Your task to perform on an android device: change keyboard looks Image 0: 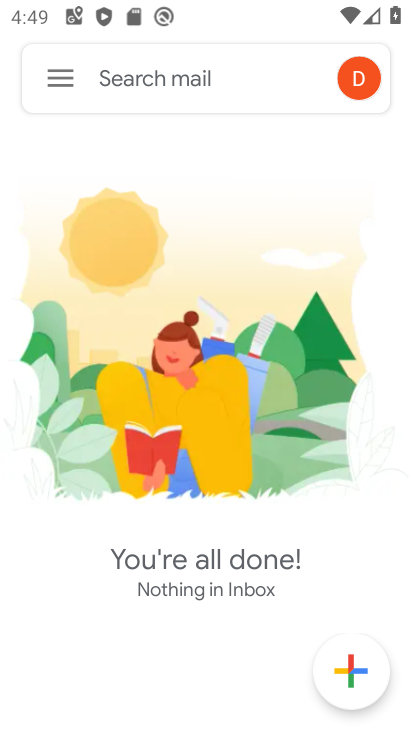
Step 0: press home button
Your task to perform on an android device: change keyboard looks Image 1: 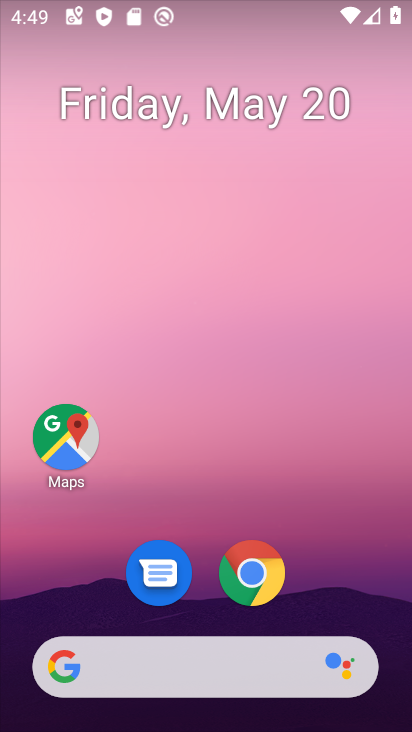
Step 1: drag from (409, 648) to (307, 5)
Your task to perform on an android device: change keyboard looks Image 2: 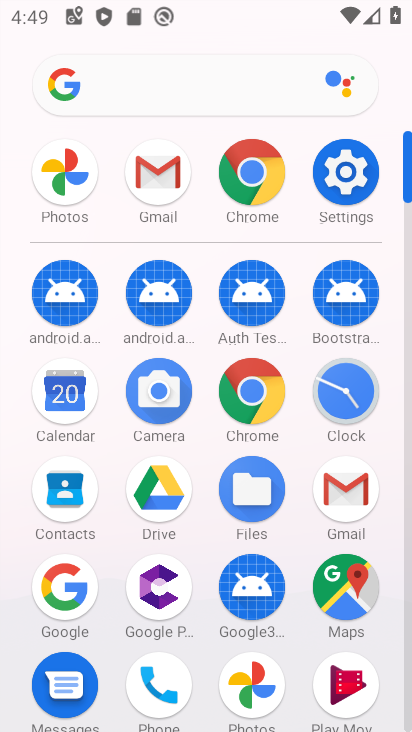
Step 2: click (408, 708)
Your task to perform on an android device: change keyboard looks Image 3: 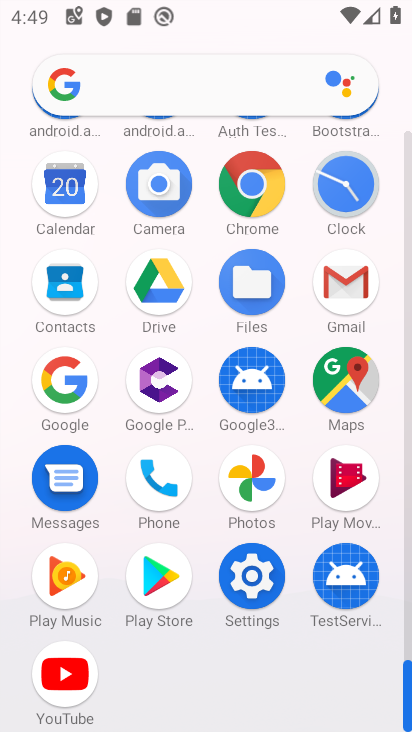
Step 3: click (248, 574)
Your task to perform on an android device: change keyboard looks Image 4: 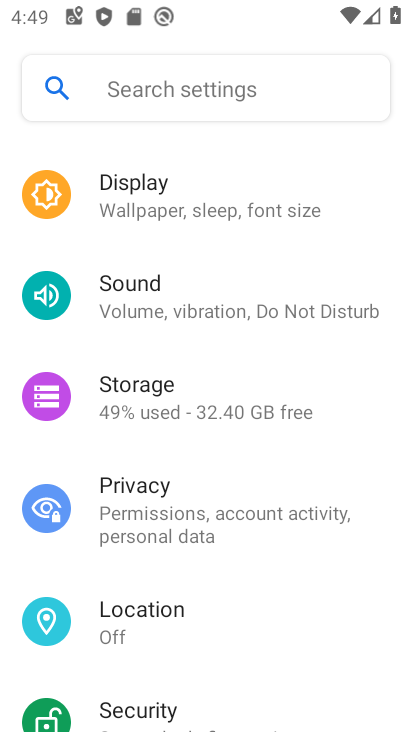
Step 4: drag from (315, 672) to (336, 245)
Your task to perform on an android device: change keyboard looks Image 5: 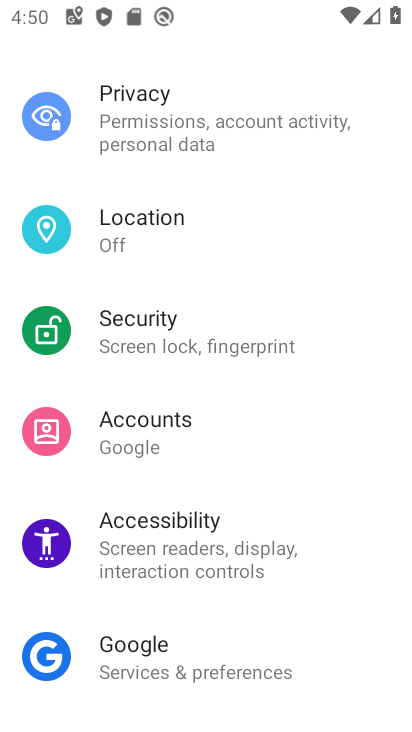
Step 5: drag from (345, 684) to (317, 204)
Your task to perform on an android device: change keyboard looks Image 6: 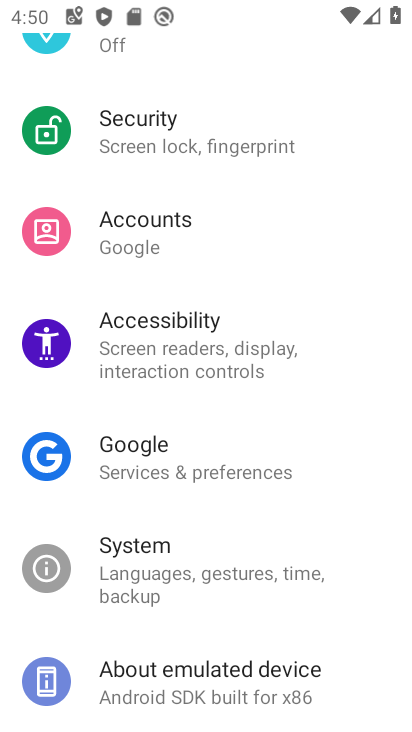
Step 6: click (131, 563)
Your task to perform on an android device: change keyboard looks Image 7: 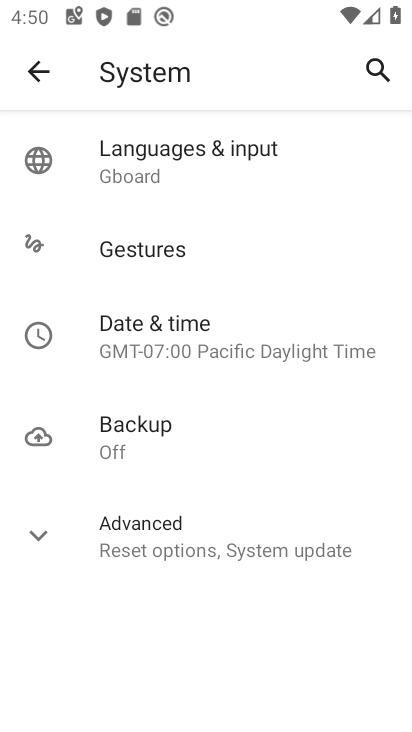
Step 7: click (151, 154)
Your task to perform on an android device: change keyboard looks Image 8: 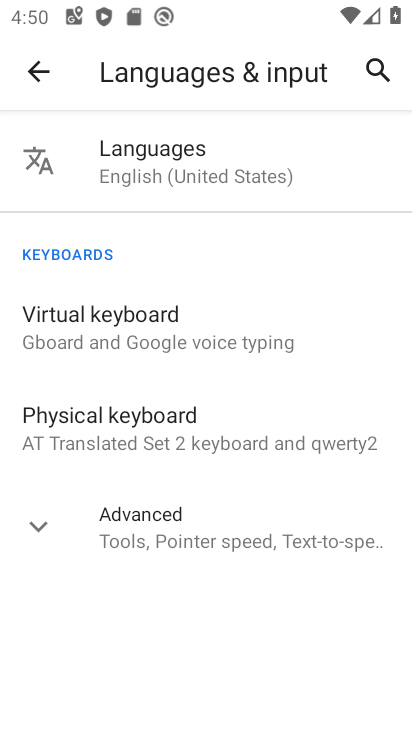
Step 8: click (86, 441)
Your task to perform on an android device: change keyboard looks Image 9: 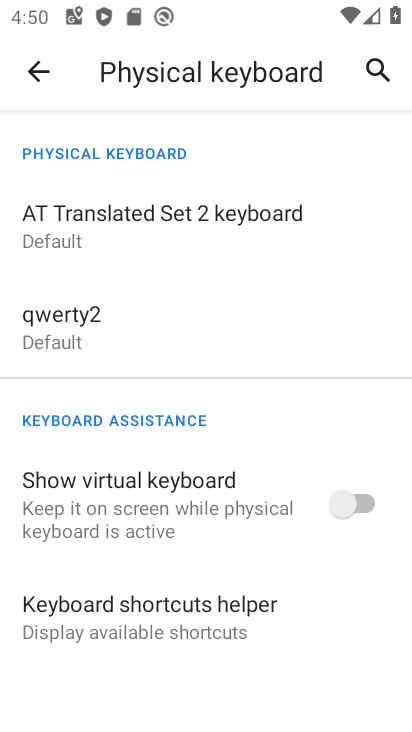
Step 9: click (68, 322)
Your task to perform on an android device: change keyboard looks Image 10: 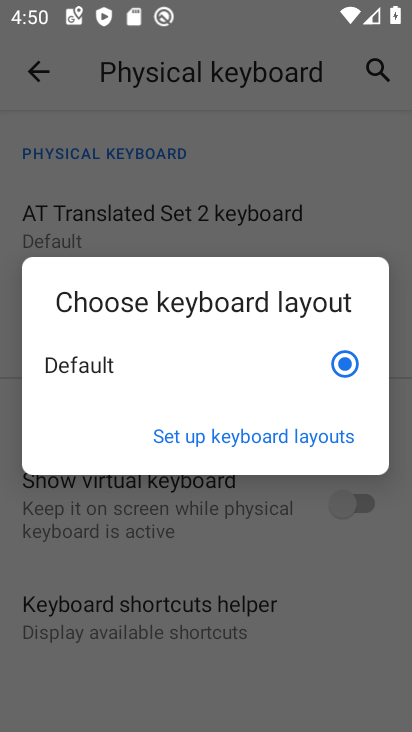
Step 10: click (268, 449)
Your task to perform on an android device: change keyboard looks Image 11: 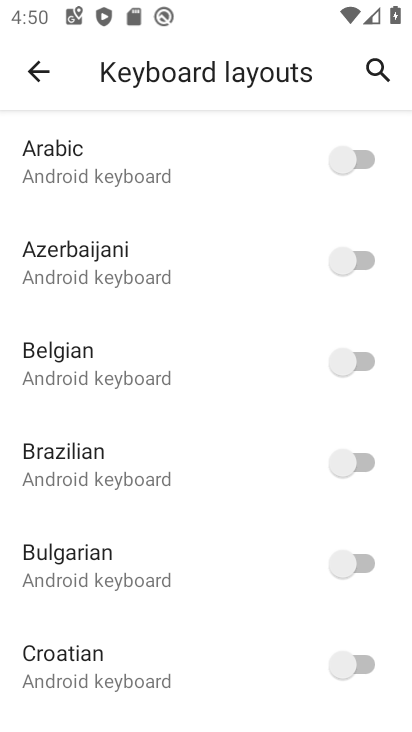
Step 11: click (368, 681)
Your task to perform on an android device: change keyboard looks Image 12: 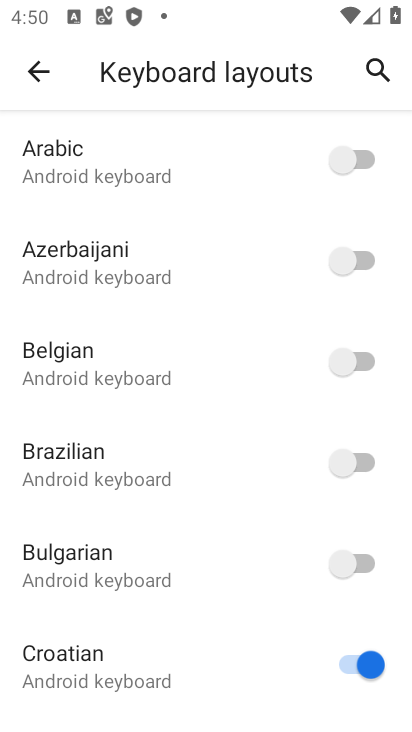
Step 12: task complete